Your task to perform on an android device: delete location history Image 0: 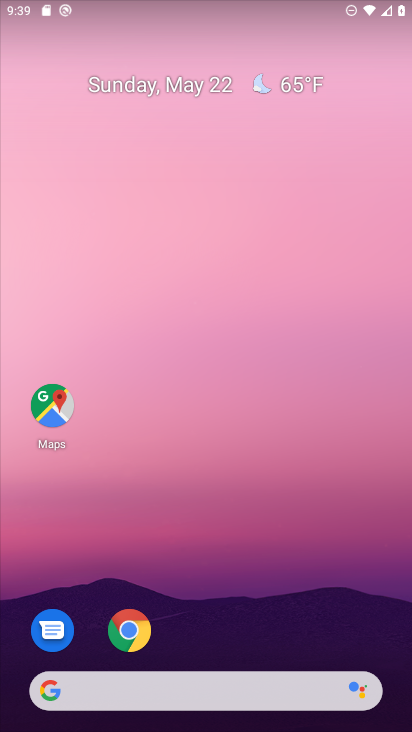
Step 0: click (62, 406)
Your task to perform on an android device: delete location history Image 1: 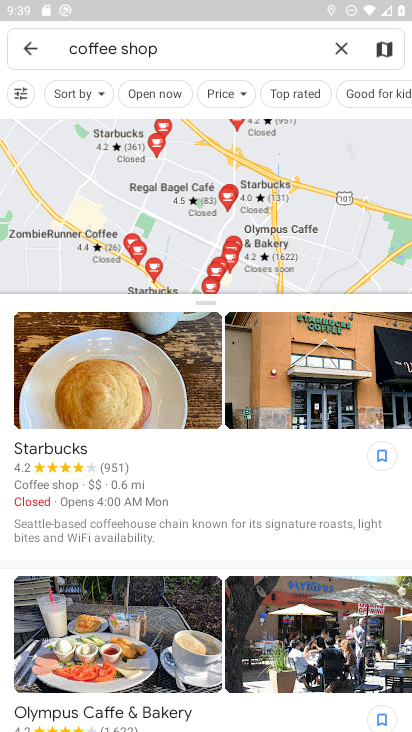
Step 1: click (33, 48)
Your task to perform on an android device: delete location history Image 2: 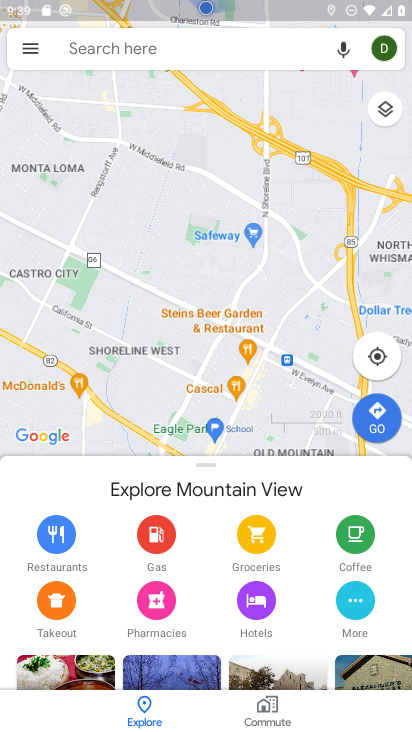
Step 2: click (32, 46)
Your task to perform on an android device: delete location history Image 3: 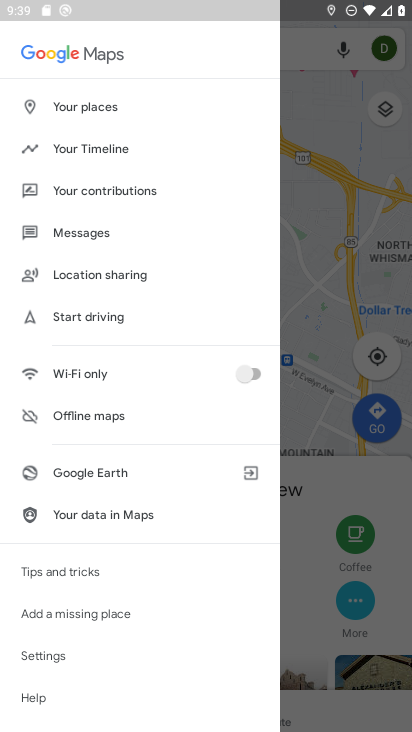
Step 3: click (83, 144)
Your task to perform on an android device: delete location history Image 4: 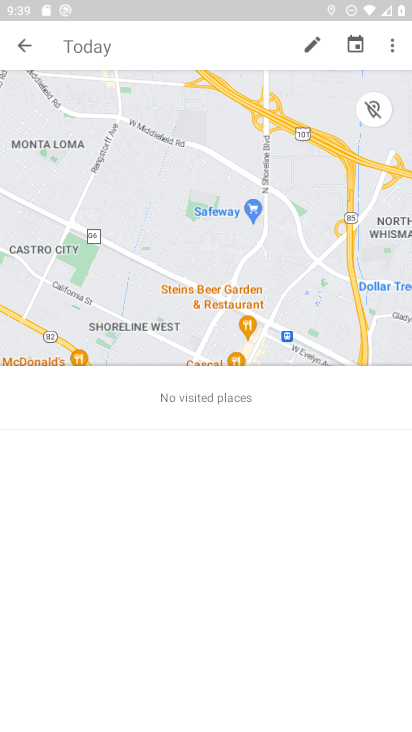
Step 4: click (393, 50)
Your task to perform on an android device: delete location history Image 5: 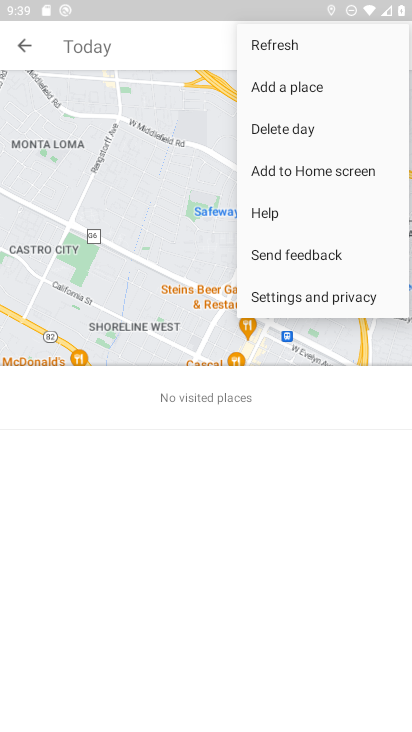
Step 5: click (274, 295)
Your task to perform on an android device: delete location history Image 6: 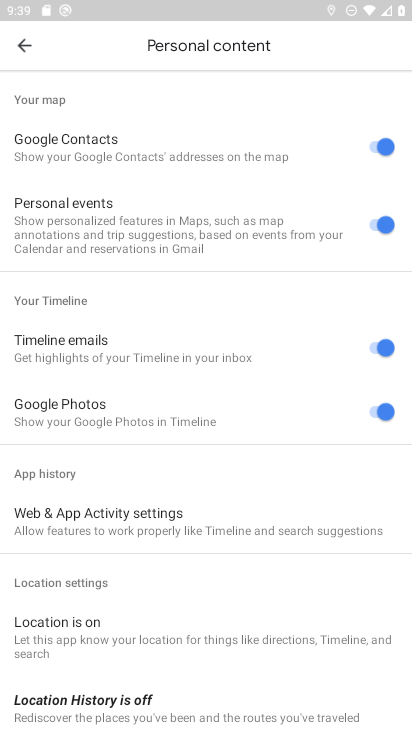
Step 6: drag from (134, 628) to (184, 219)
Your task to perform on an android device: delete location history Image 7: 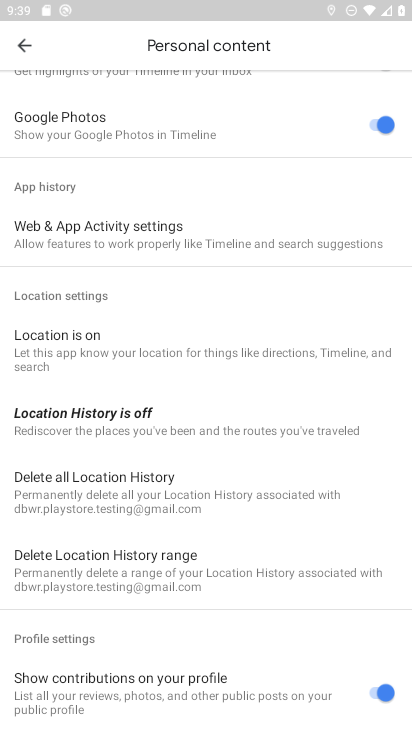
Step 7: click (91, 493)
Your task to perform on an android device: delete location history Image 8: 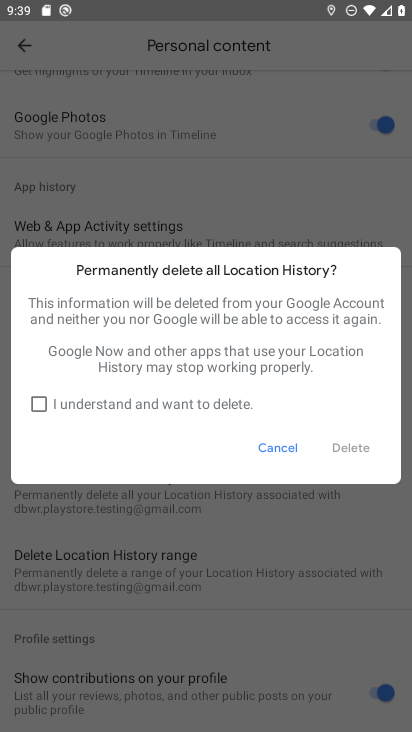
Step 8: click (35, 410)
Your task to perform on an android device: delete location history Image 9: 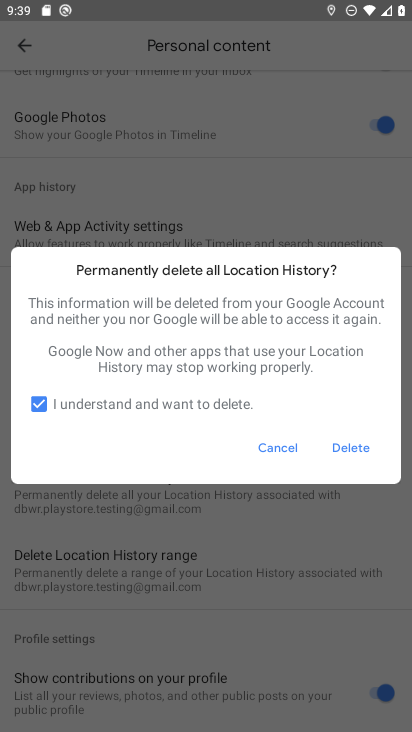
Step 9: click (363, 449)
Your task to perform on an android device: delete location history Image 10: 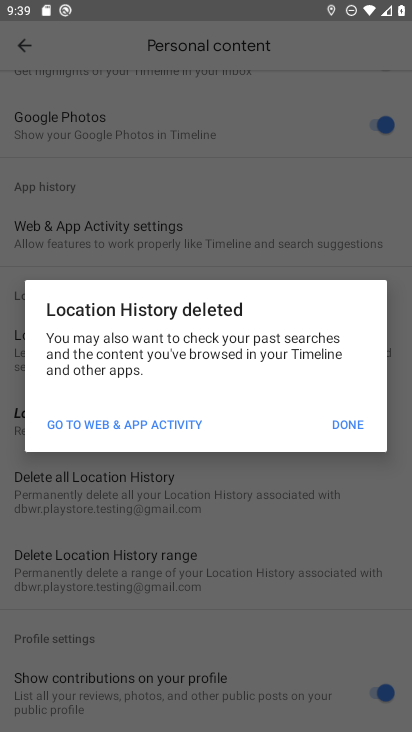
Step 10: click (352, 425)
Your task to perform on an android device: delete location history Image 11: 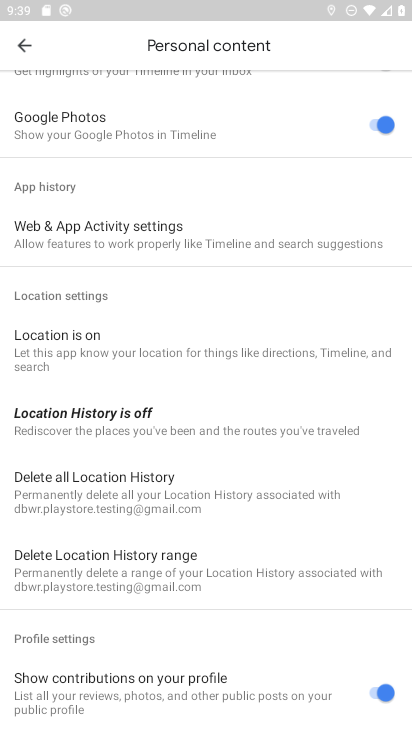
Step 11: task complete